Your task to perform on an android device: Open settings on Google Maps Image 0: 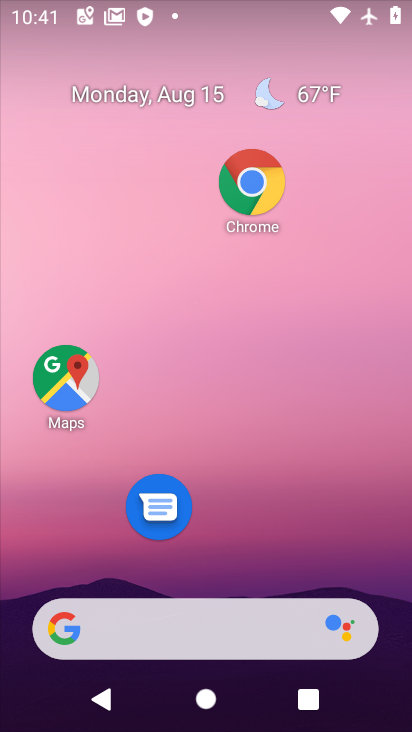
Step 0: click (55, 406)
Your task to perform on an android device: Open settings on Google Maps Image 1: 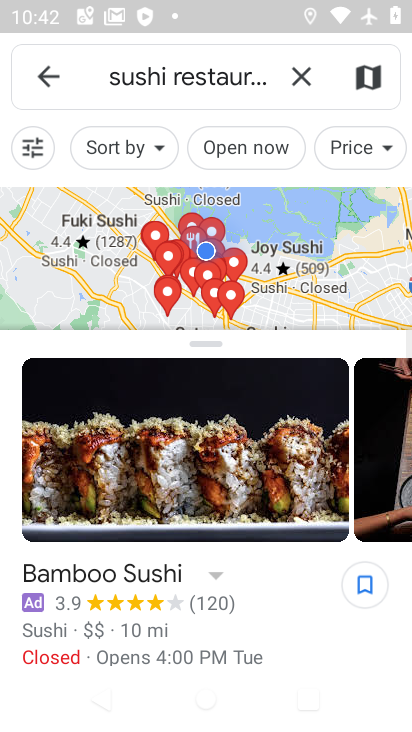
Step 1: click (296, 92)
Your task to perform on an android device: Open settings on Google Maps Image 2: 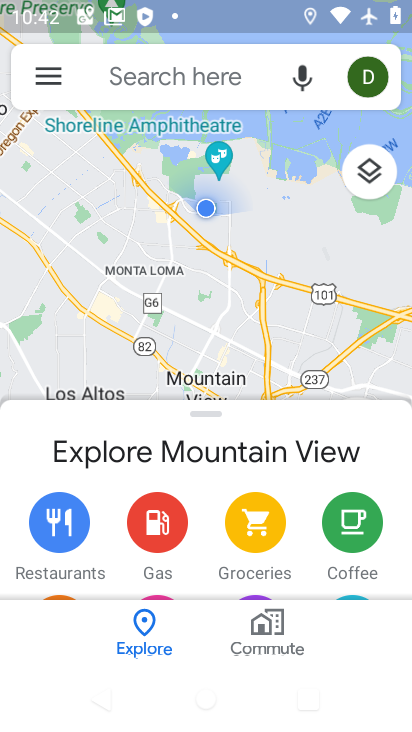
Step 2: click (224, 92)
Your task to perform on an android device: Open settings on Google Maps Image 3: 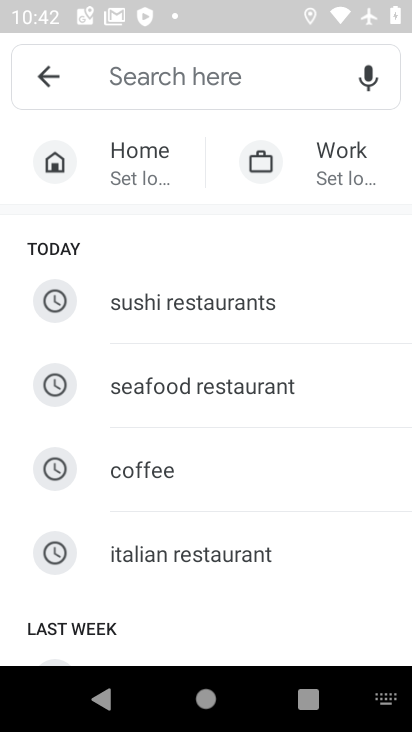
Step 3: click (53, 95)
Your task to perform on an android device: Open settings on Google Maps Image 4: 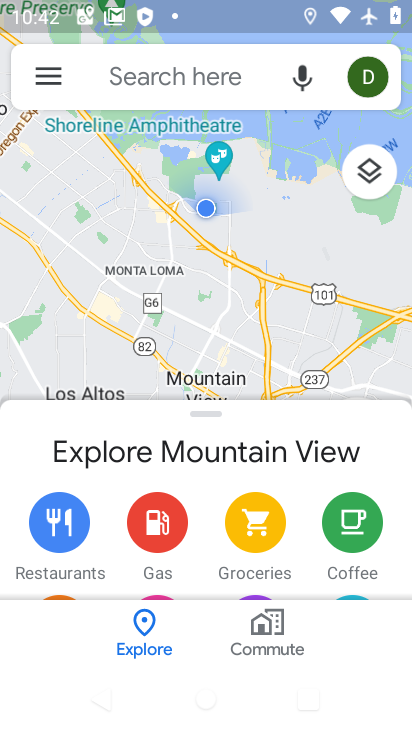
Step 4: click (53, 95)
Your task to perform on an android device: Open settings on Google Maps Image 5: 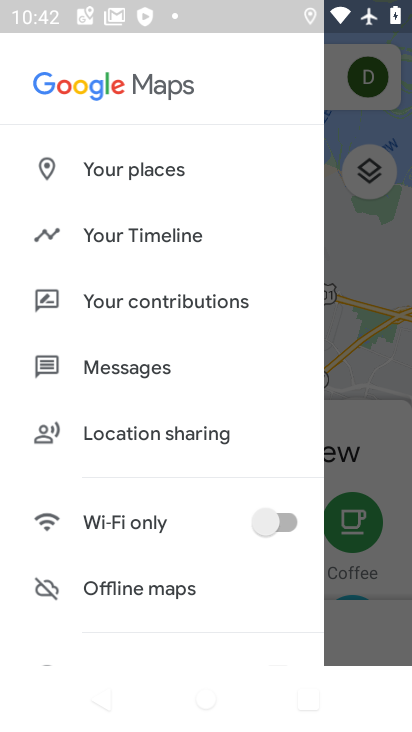
Step 5: task complete